Your task to perform on an android device: delete the emails in spam in the gmail app Image 0: 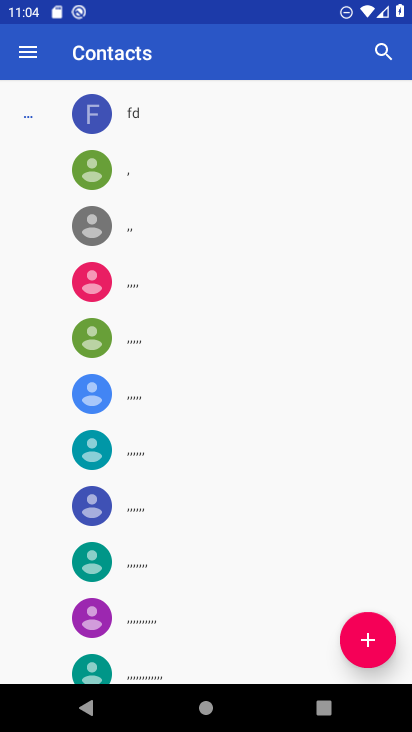
Step 0: press home button
Your task to perform on an android device: delete the emails in spam in the gmail app Image 1: 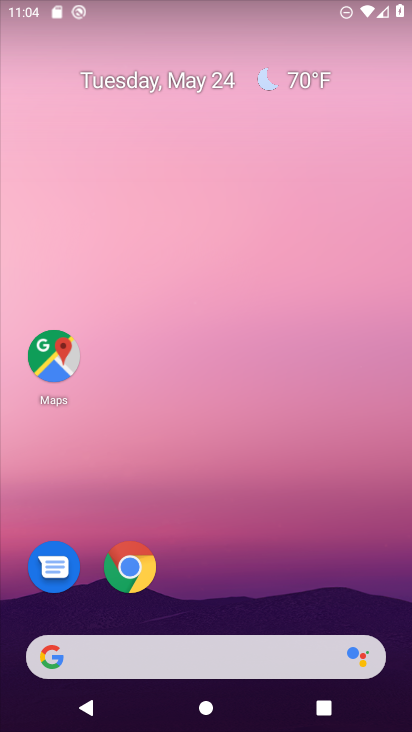
Step 1: drag from (394, 704) to (366, 232)
Your task to perform on an android device: delete the emails in spam in the gmail app Image 2: 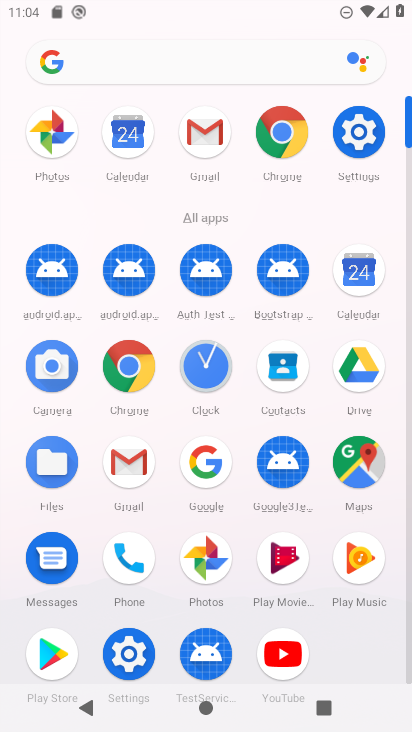
Step 2: click (141, 455)
Your task to perform on an android device: delete the emails in spam in the gmail app Image 3: 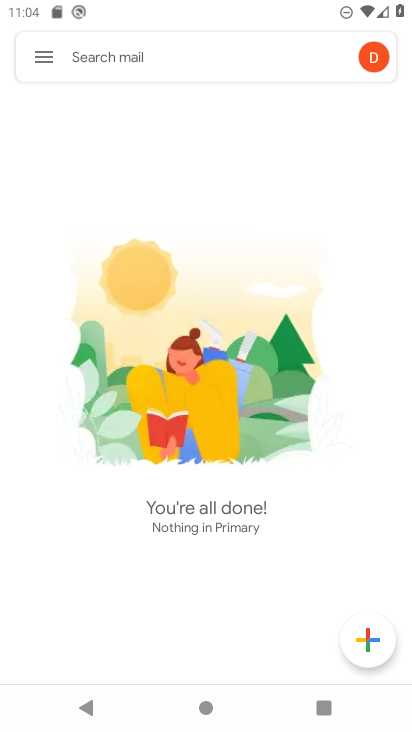
Step 3: click (36, 50)
Your task to perform on an android device: delete the emails in spam in the gmail app Image 4: 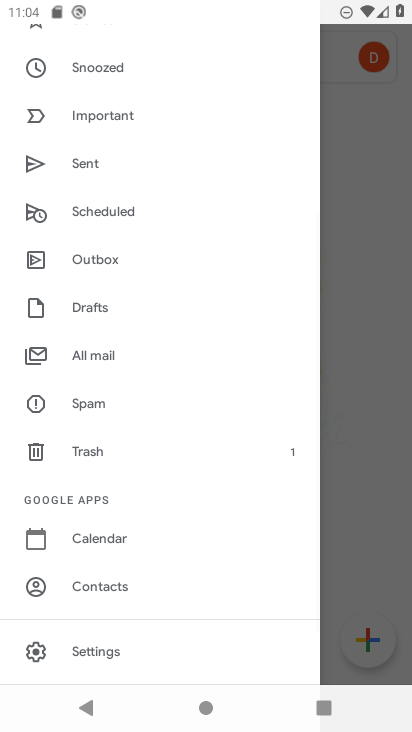
Step 4: drag from (190, 97) to (240, 508)
Your task to perform on an android device: delete the emails in spam in the gmail app Image 5: 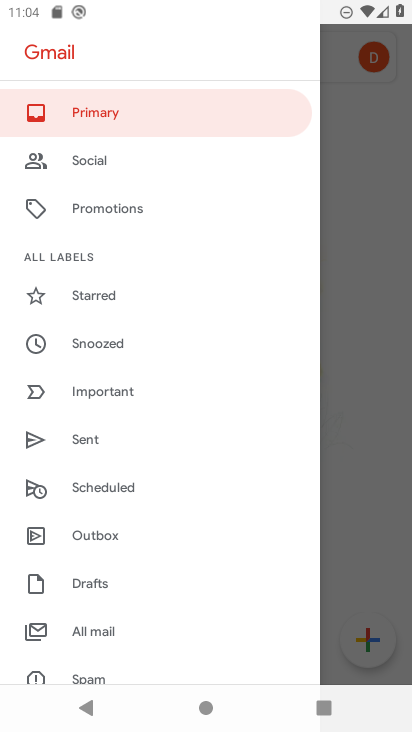
Step 5: click (179, 105)
Your task to perform on an android device: delete the emails in spam in the gmail app Image 6: 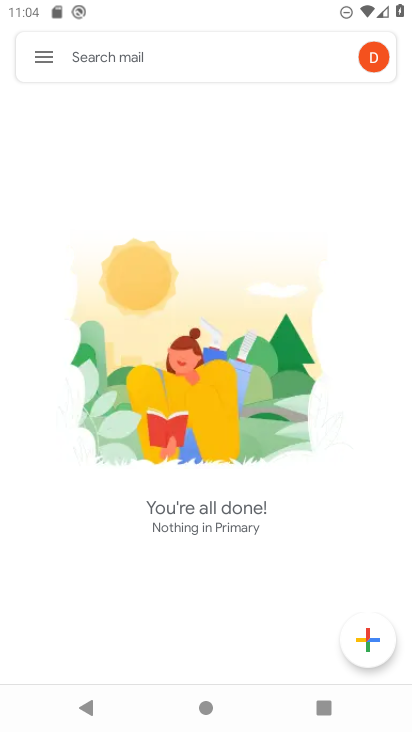
Step 6: click (47, 57)
Your task to perform on an android device: delete the emails in spam in the gmail app Image 7: 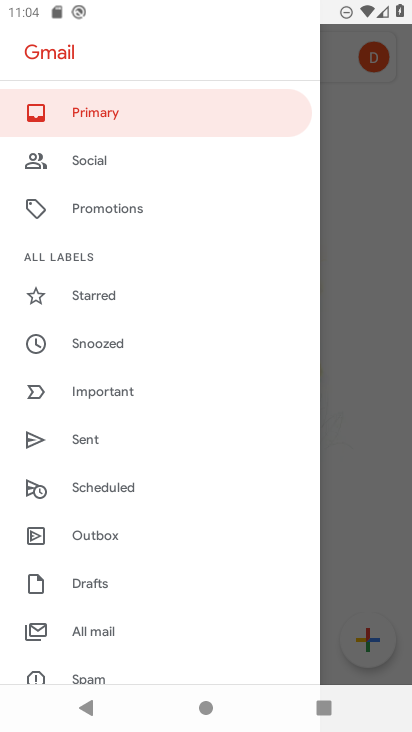
Step 7: click (80, 671)
Your task to perform on an android device: delete the emails in spam in the gmail app Image 8: 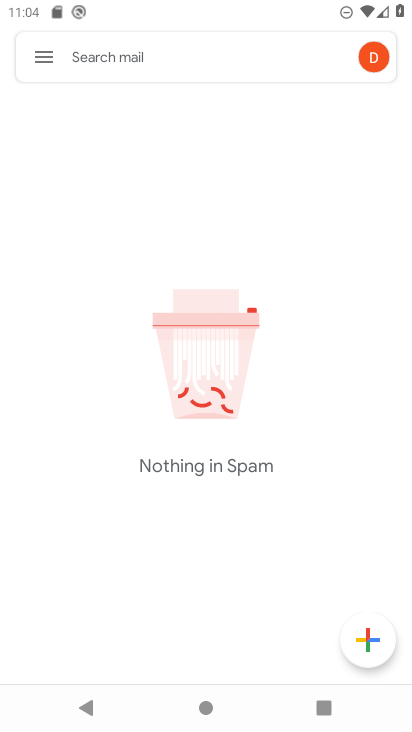
Step 8: task complete